Your task to perform on an android device: Go to privacy settings Image 0: 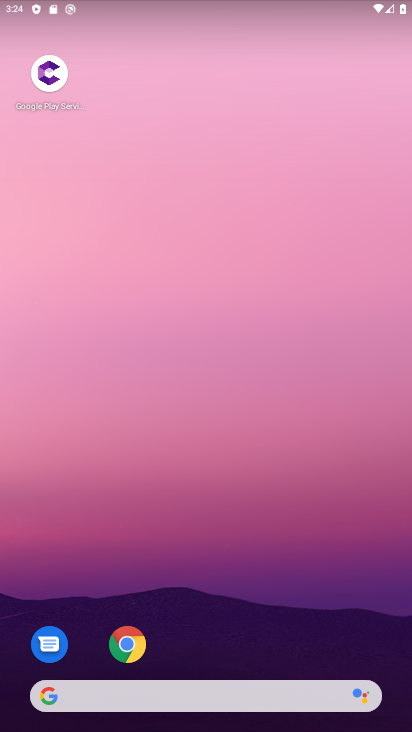
Step 0: drag from (275, 261) to (218, 0)
Your task to perform on an android device: Go to privacy settings Image 1: 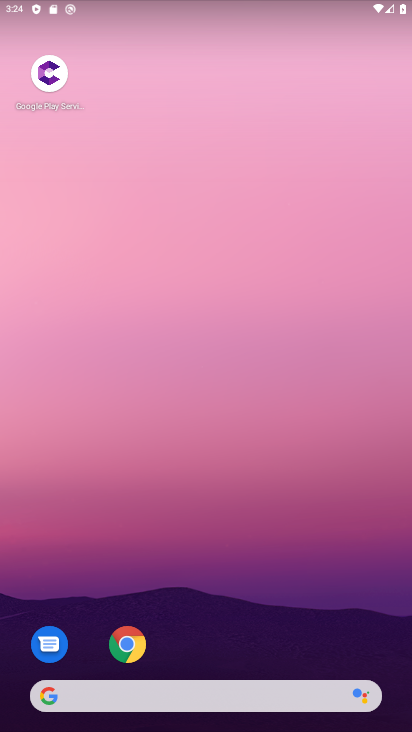
Step 1: drag from (263, 576) to (166, 4)
Your task to perform on an android device: Go to privacy settings Image 2: 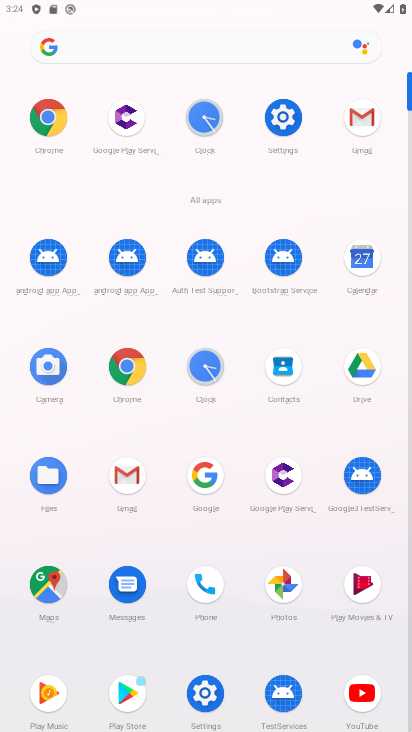
Step 2: click (286, 115)
Your task to perform on an android device: Go to privacy settings Image 3: 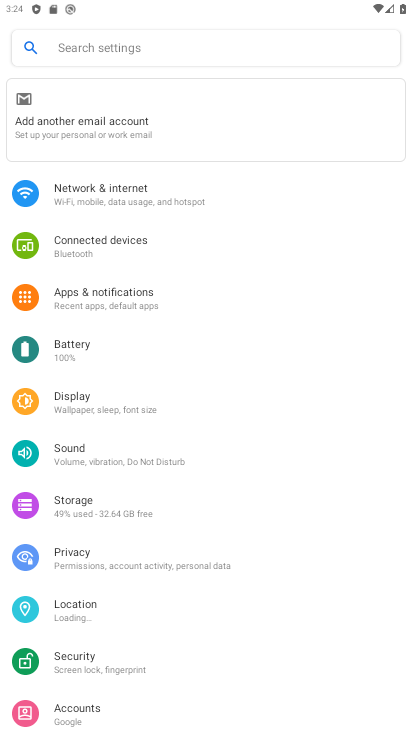
Step 3: click (157, 561)
Your task to perform on an android device: Go to privacy settings Image 4: 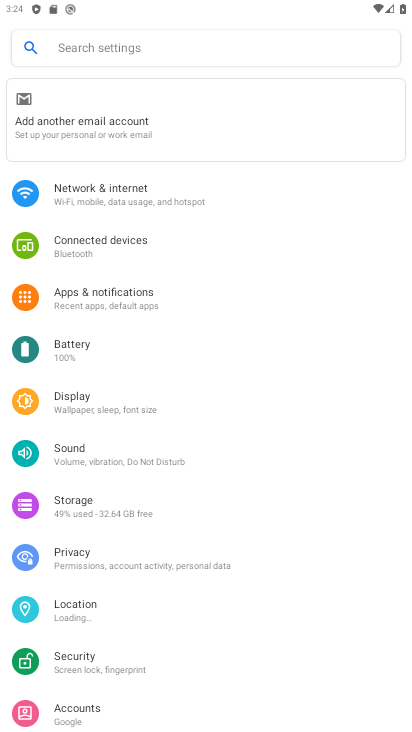
Step 4: task complete